Your task to perform on an android device: find snoozed emails in the gmail app Image 0: 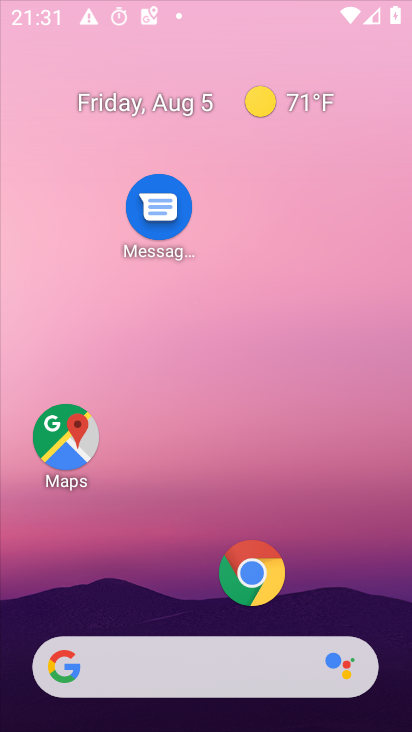
Step 0: press home button
Your task to perform on an android device: find snoozed emails in the gmail app Image 1: 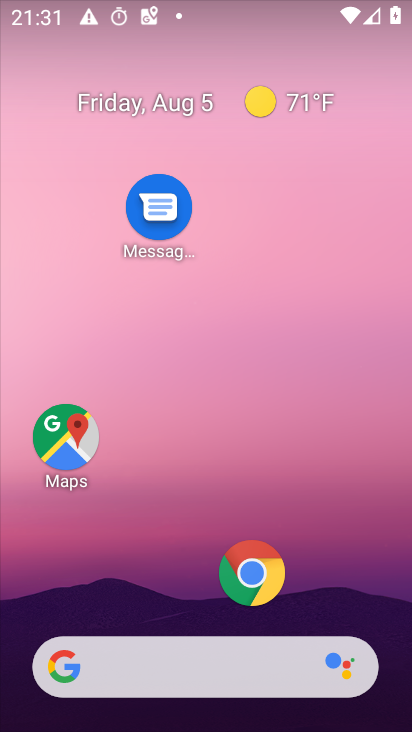
Step 1: drag from (315, 608) to (311, 54)
Your task to perform on an android device: find snoozed emails in the gmail app Image 2: 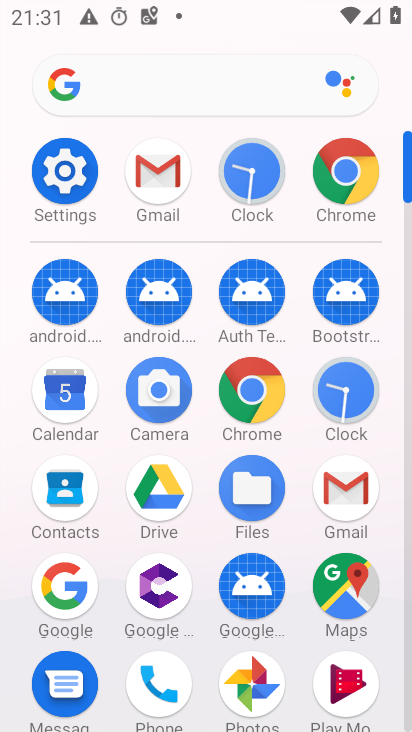
Step 2: click (339, 475)
Your task to perform on an android device: find snoozed emails in the gmail app Image 3: 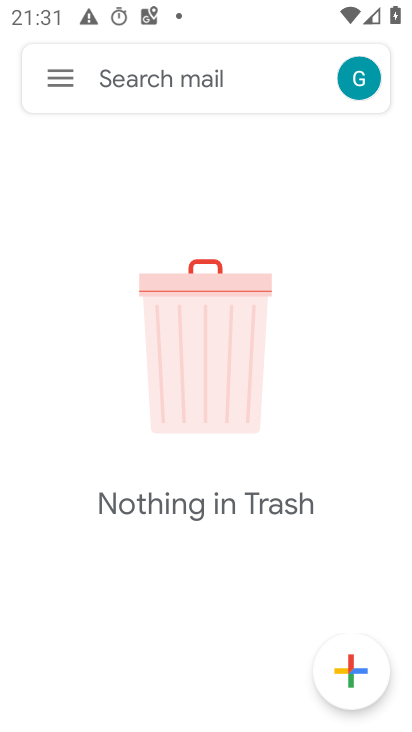
Step 3: click (62, 71)
Your task to perform on an android device: find snoozed emails in the gmail app Image 4: 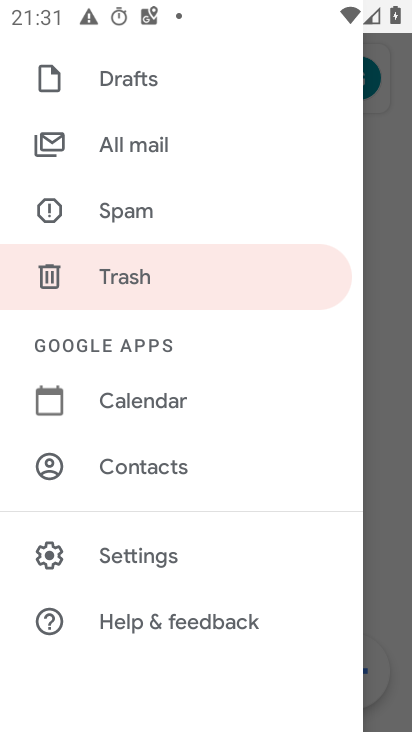
Step 4: drag from (199, 96) to (168, 705)
Your task to perform on an android device: find snoozed emails in the gmail app Image 5: 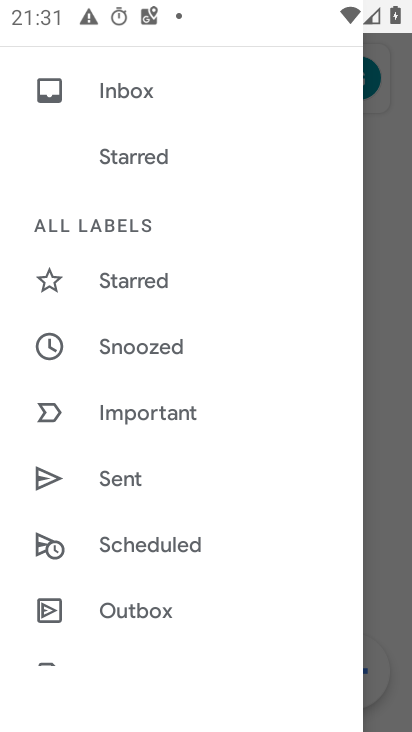
Step 5: click (195, 339)
Your task to perform on an android device: find snoozed emails in the gmail app Image 6: 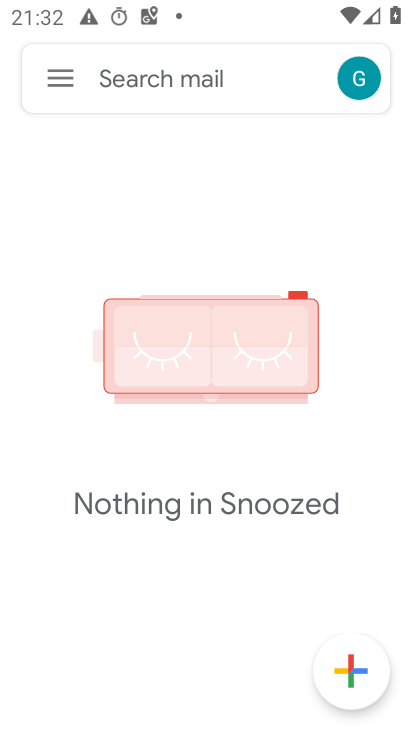
Step 6: task complete